Your task to perform on an android device: change keyboard looks Image 0: 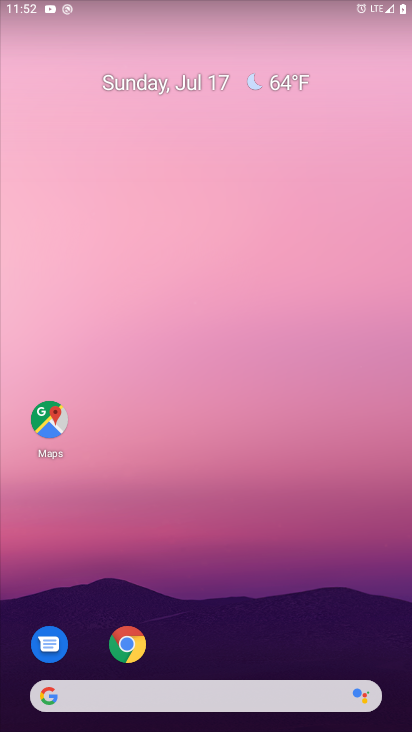
Step 0: press home button
Your task to perform on an android device: change keyboard looks Image 1: 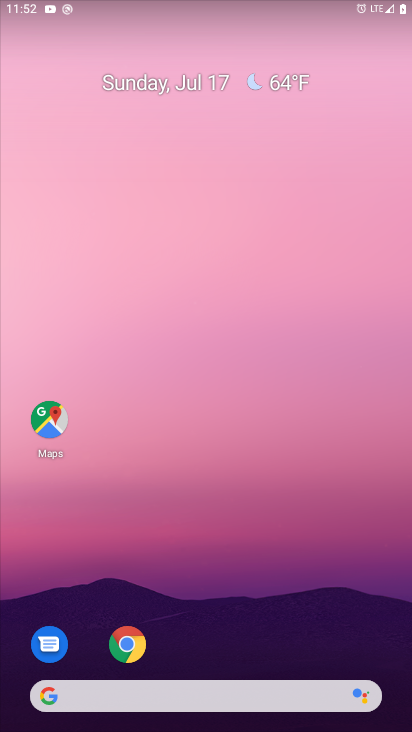
Step 1: drag from (294, 628) to (340, 36)
Your task to perform on an android device: change keyboard looks Image 2: 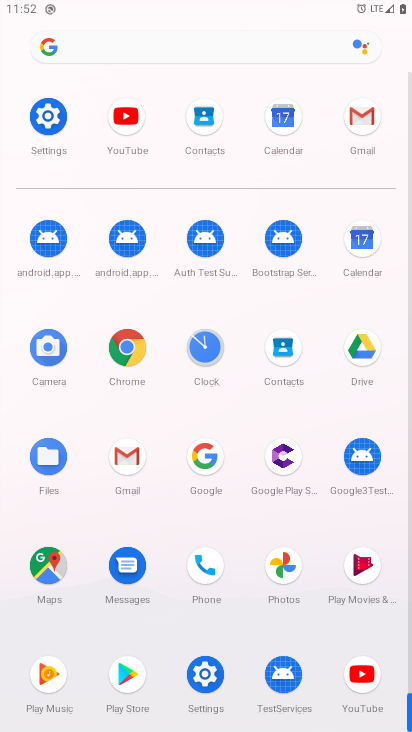
Step 2: click (40, 116)
Your task to perform on an android device: change keyboard looks Image 3: 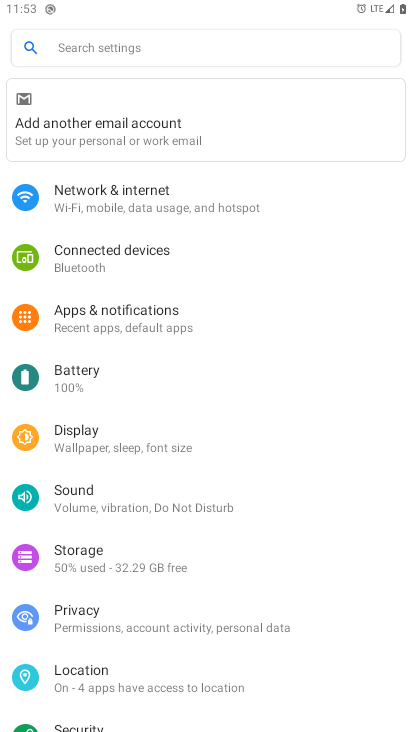
Step 3: drag from (167, 657) to (187, 177)
Your task to perform on an android device: change keyboard looks Image 4: 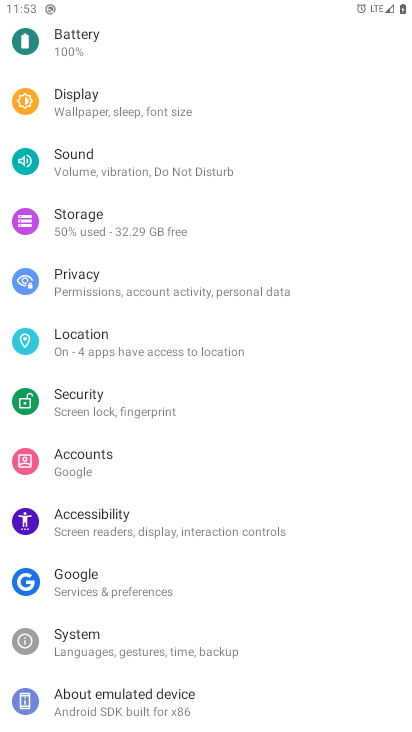
Step 4: click (107, 646)
Your task to perform on an android device: change keyboard looks Image 5: 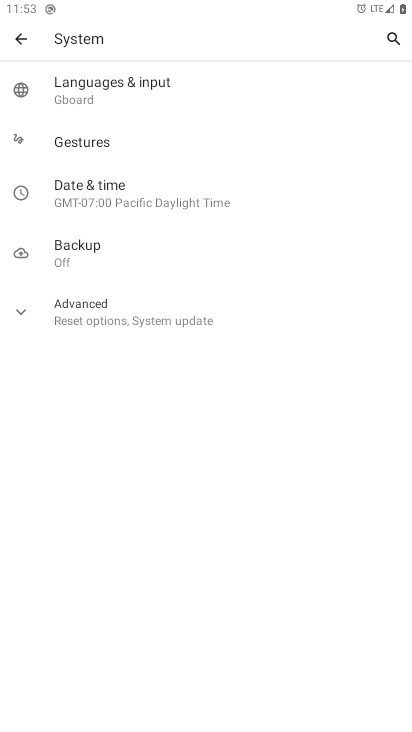
Step 5: click (116, 85)
Your task to perform on an android device: change keyboard looks Image 6: 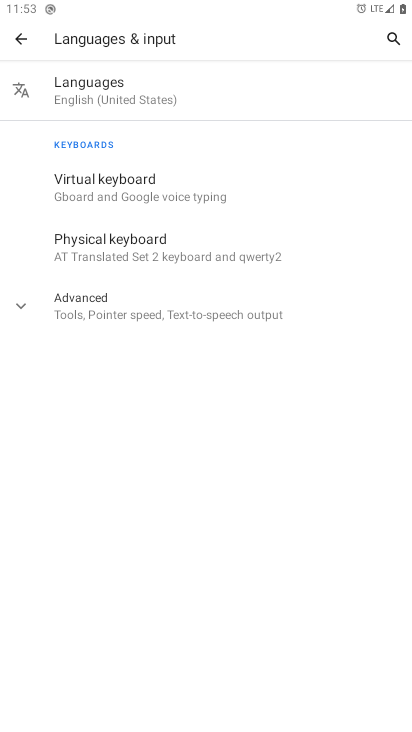
Step 6: click (94, 188)
Your task to perform on an android device: change keyboard looks Image 7: 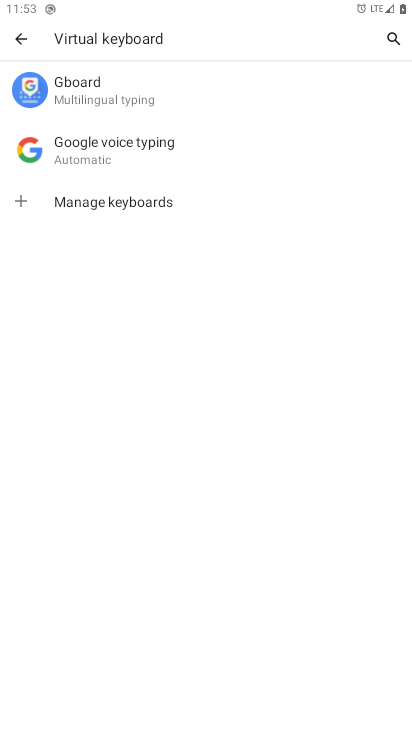
Step 7: click (102, 100)
Your task to perform on an android device: change keyboard looks Image 8: 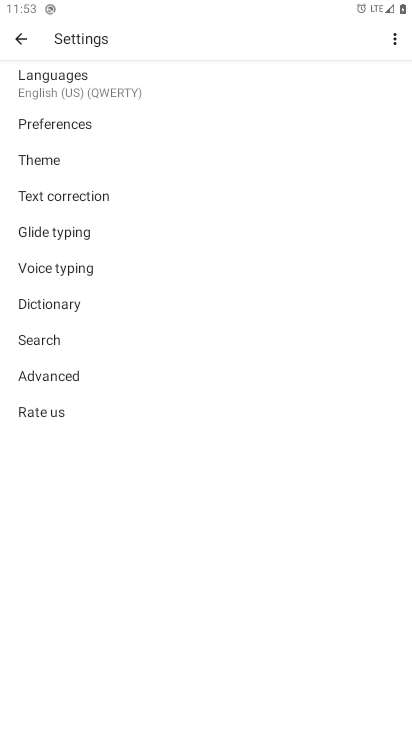
Step 8: click (67, 161)
Your task to perform on an android device: change keyboard looks Image 9: 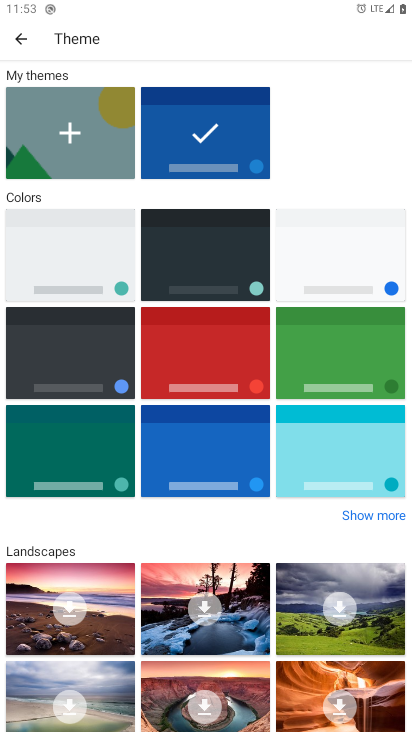
Step 9: click (175, 451)
Your task to perform on an android device: change keyboard looks Image 10: 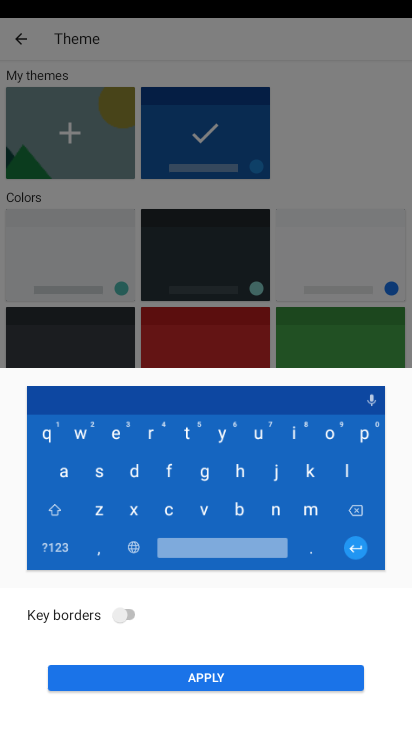
Step 10: click (185, 676)
Your task to perform on an android device: change keyboard looks Image 11: 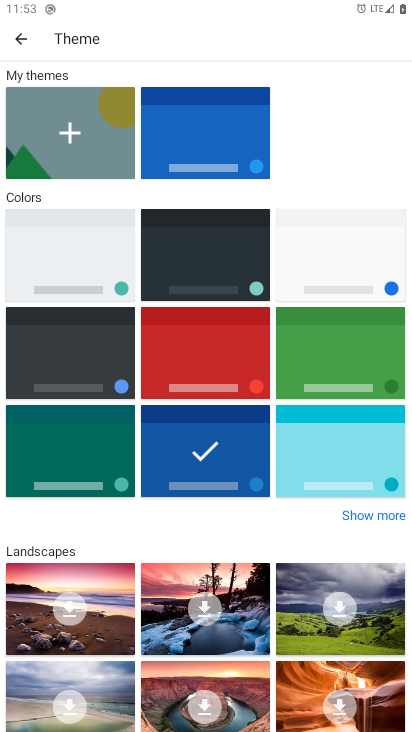
Step 11: task complete